Your task to perform on an android device: move a message to another label in the gmail app Image 0: 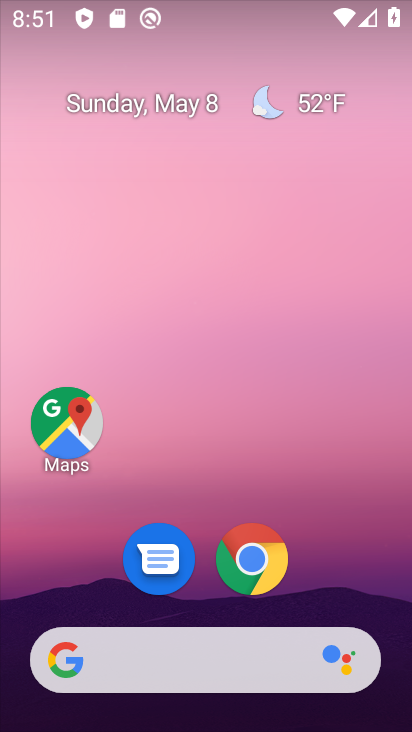
Step 0: drag from (344, 559) to (284, 20)
Your task to perform on an android device: move a message to another label in the gmail app Image 1: 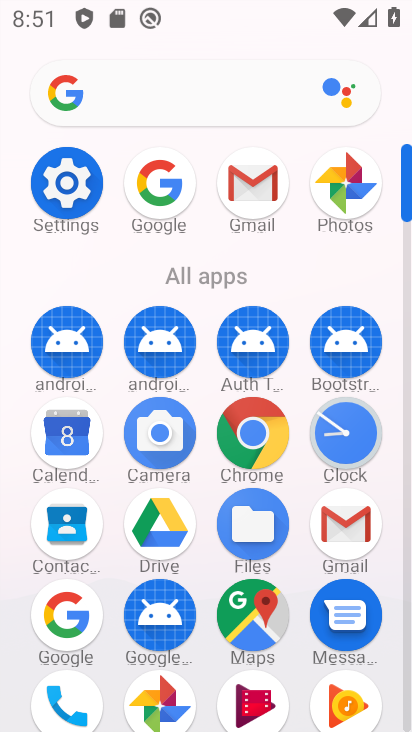
Step 1: click (343, 527)
Your task to perform on an android device: move a message to another label in the gmail app Image 2: 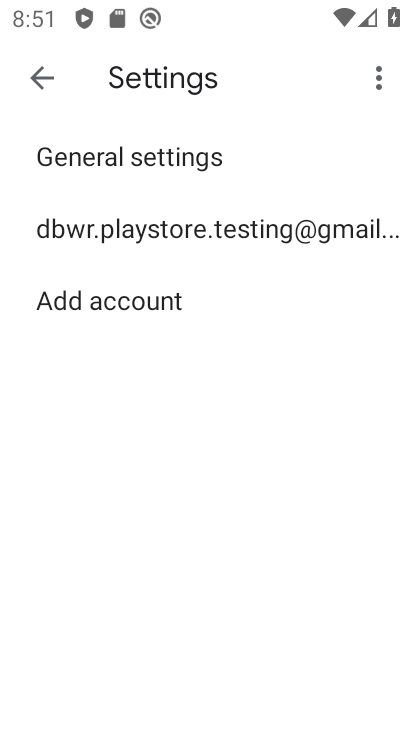
Step 2: click (99, 250)
Your task to perform on an android device: move a message to another label in the gmail app Image 3: 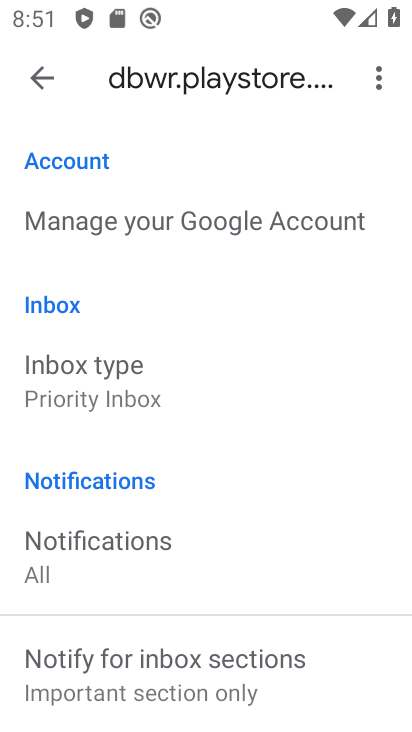
Step 3: drag from (146, 592) to (134, 436)
Your task to perform on an android device: move a message to another label in the gmail app Image 4: 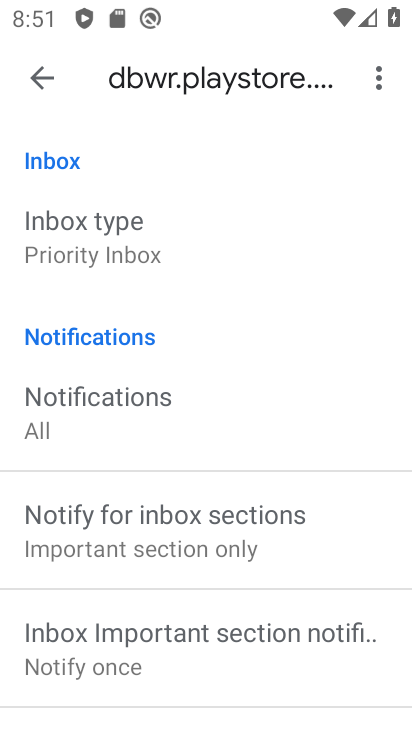
Step 4: click (30, 95)
Your task to perform on an android device: move a message to another label in the gmail app Image 5: 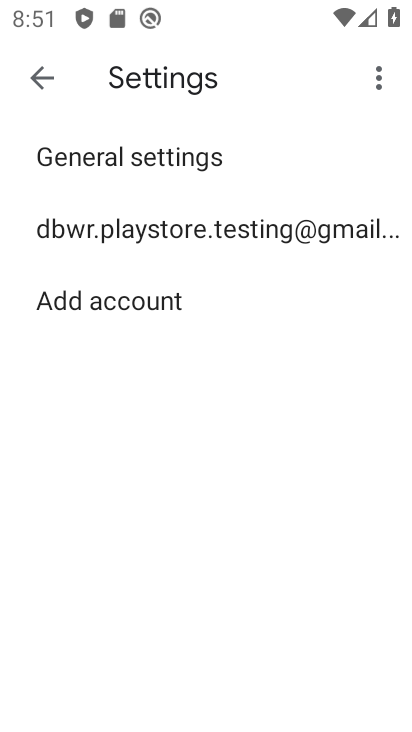
Step 5: click (46, 82)
Your task to perform on an android device: move a message to another label in the gmail app Image 6: 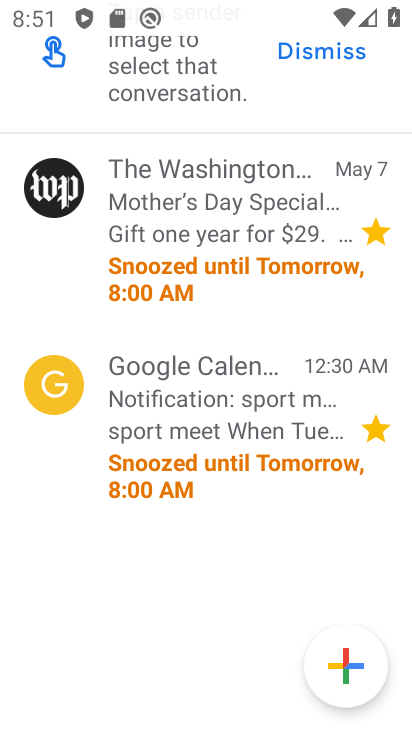
Step 6: click (200, 181)
Your task to perform on an android device: move a message to another label in the gmail app Image 7: 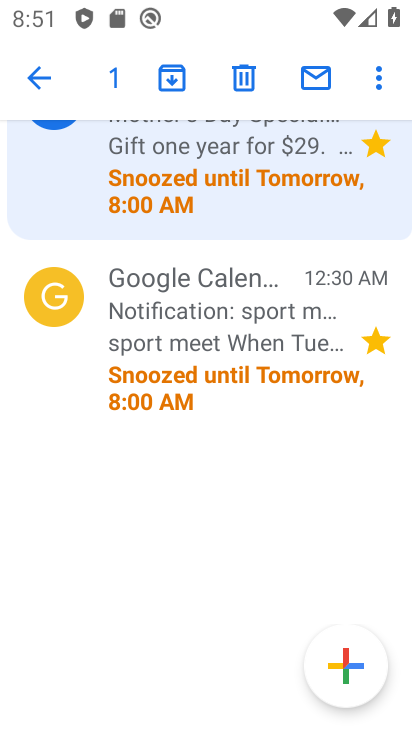
Step 7: click (388, 73)
Your task to perform on an android device: move a message to another label in the gmail app Image 8: 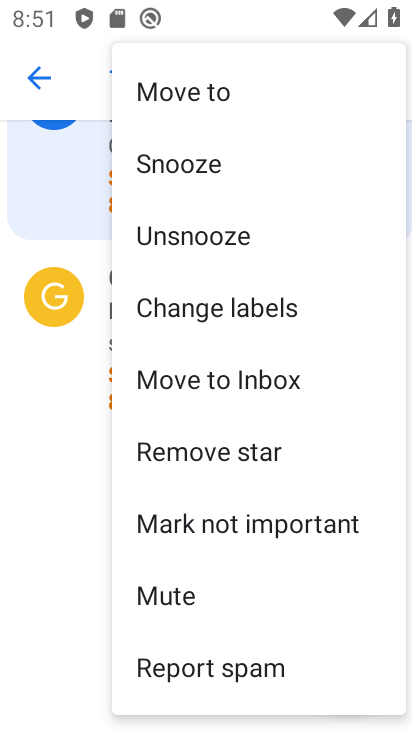
Step 8: click (240, 97)
Your task to perform on an android device: move a message to another label in the gmail app Image 9: 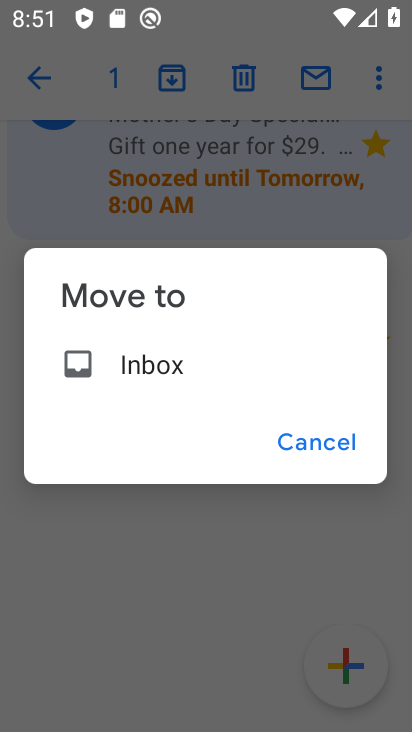
Step 9: click (220, 353)
Your task to perform on an android device: move a message to another label in the gmail app Image 10: 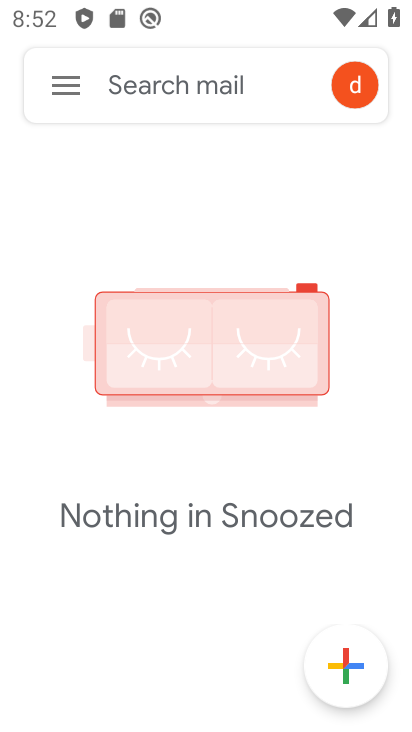
Step 10: task complete